Your task to perform on an android device: Do I have any events today? Image 0: 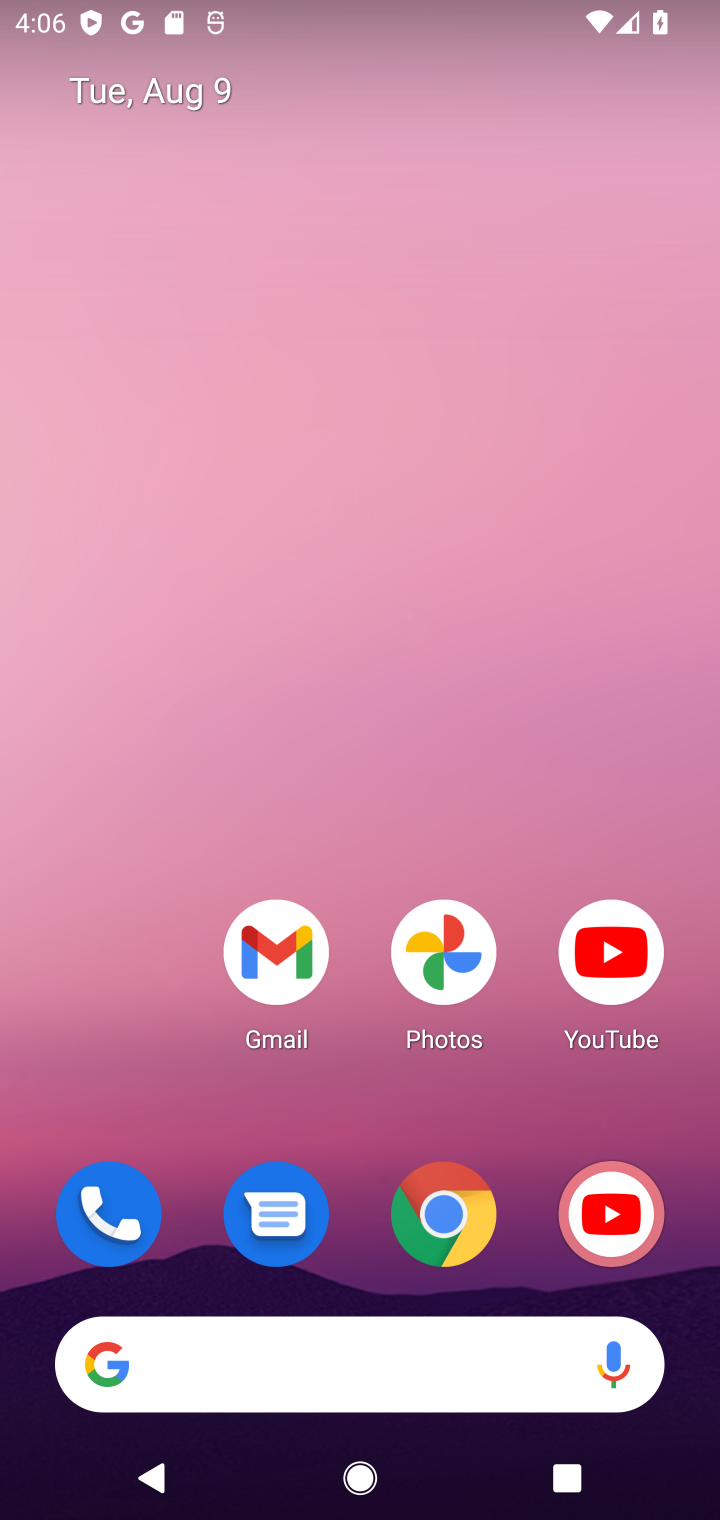
Step 0: drag from (516, 1428) to (427, 447)
Your task to perform on an android device: Do I have any events today? Image 1: 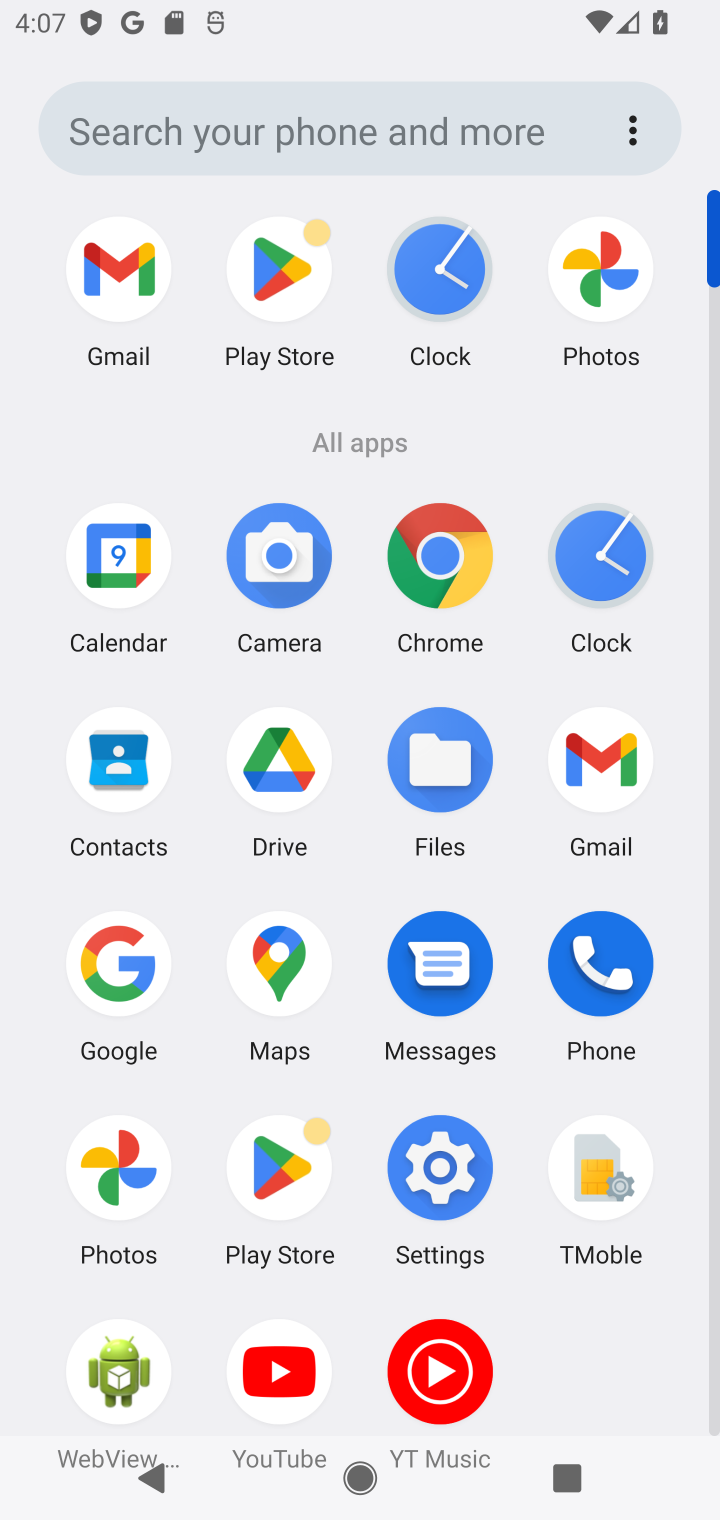
Step 1: click (105, 561)
Your task to perform on an android device: Do I have any events today? Image 2: 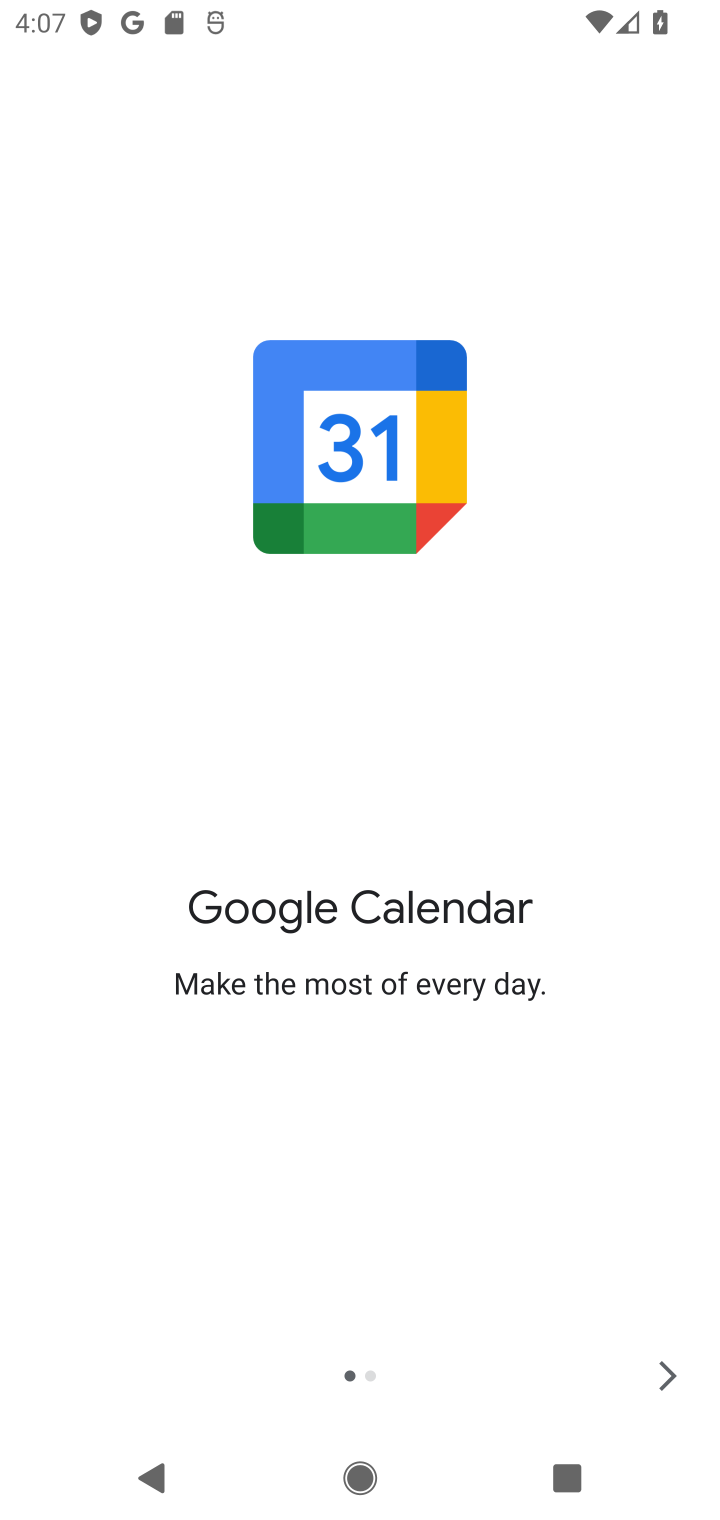
Step 2: click (659, 1380)
Your task to perform on an android device: Do I have any events today? Image 3: 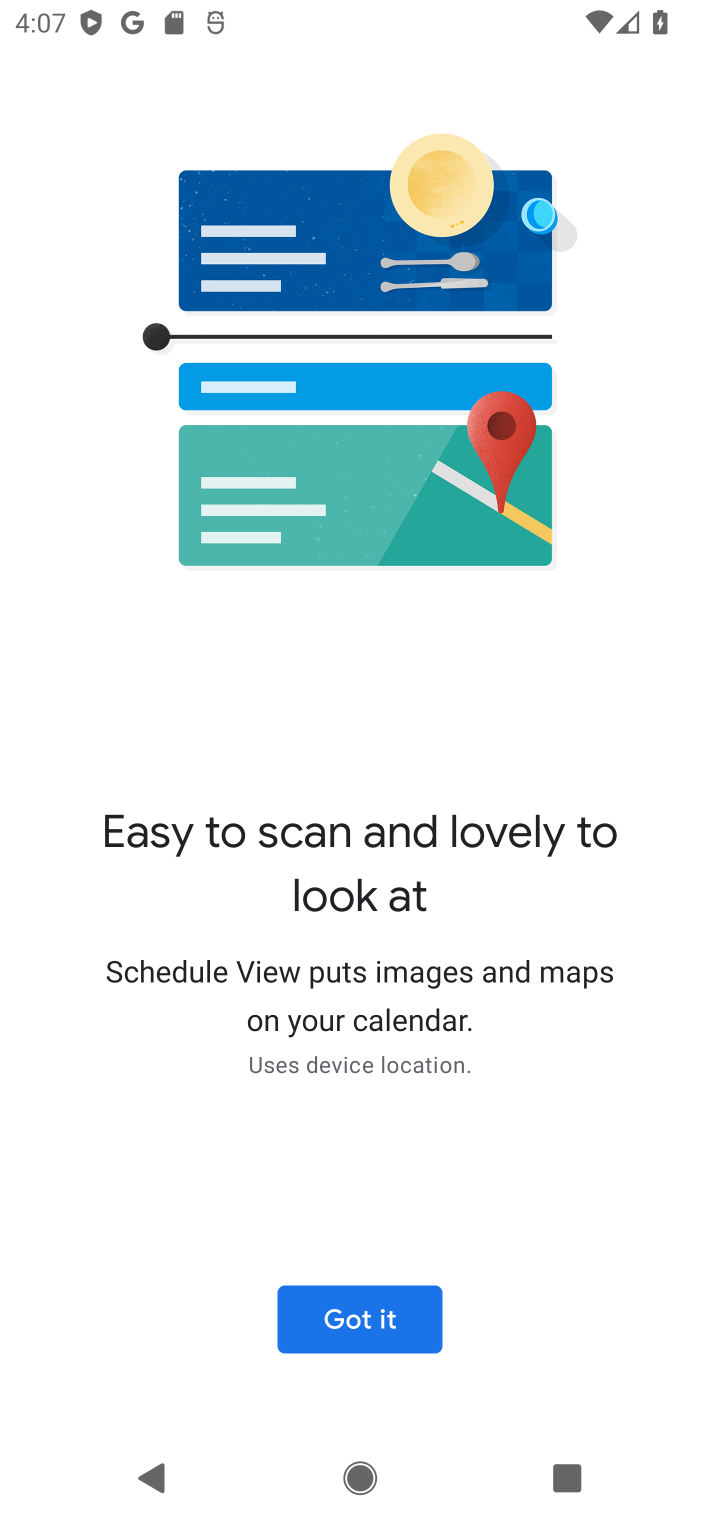
Step 3: click (375, 1312)
Your task to perform on an android device: Do I have any events today? Image 4: 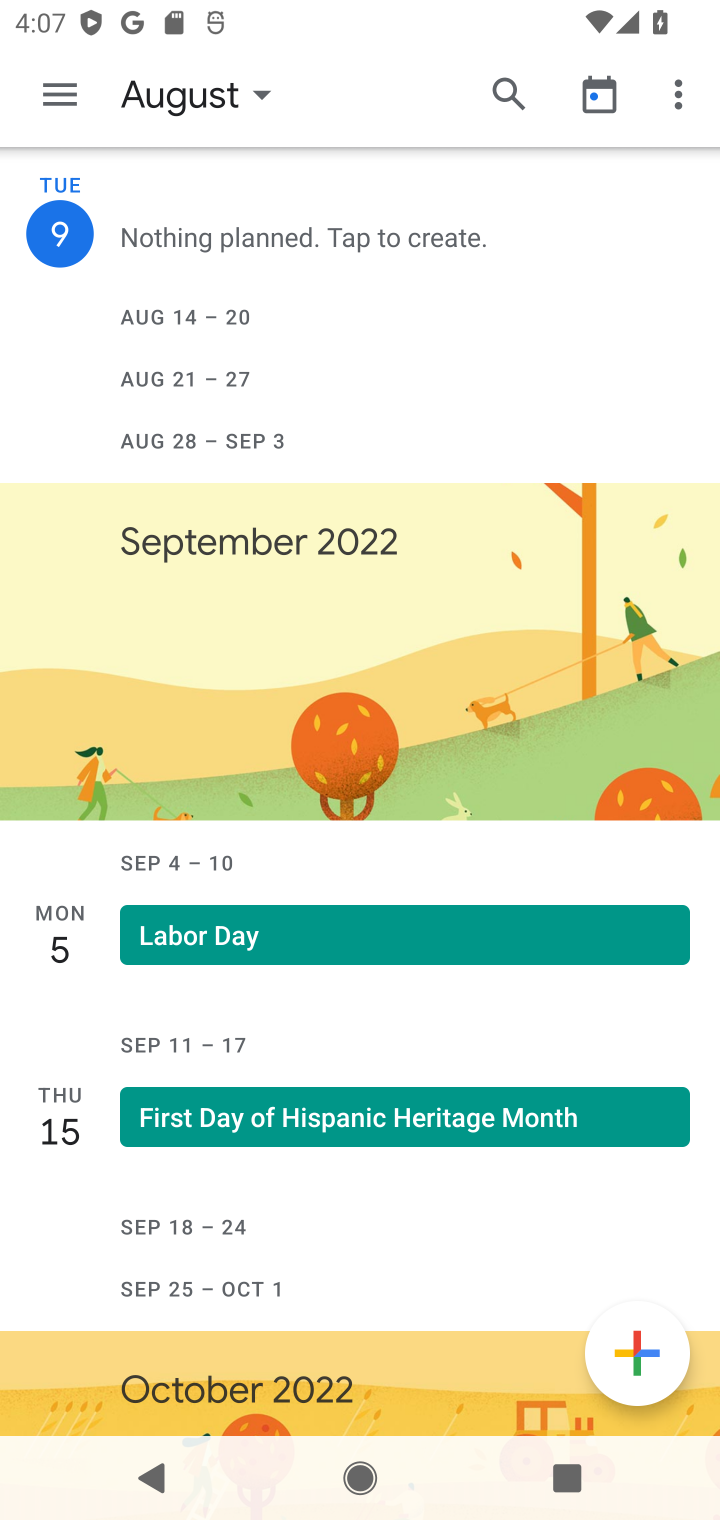
Step 4: click (49, 103)
Your task to perform on an android device: Do I have any events today? Image 5: 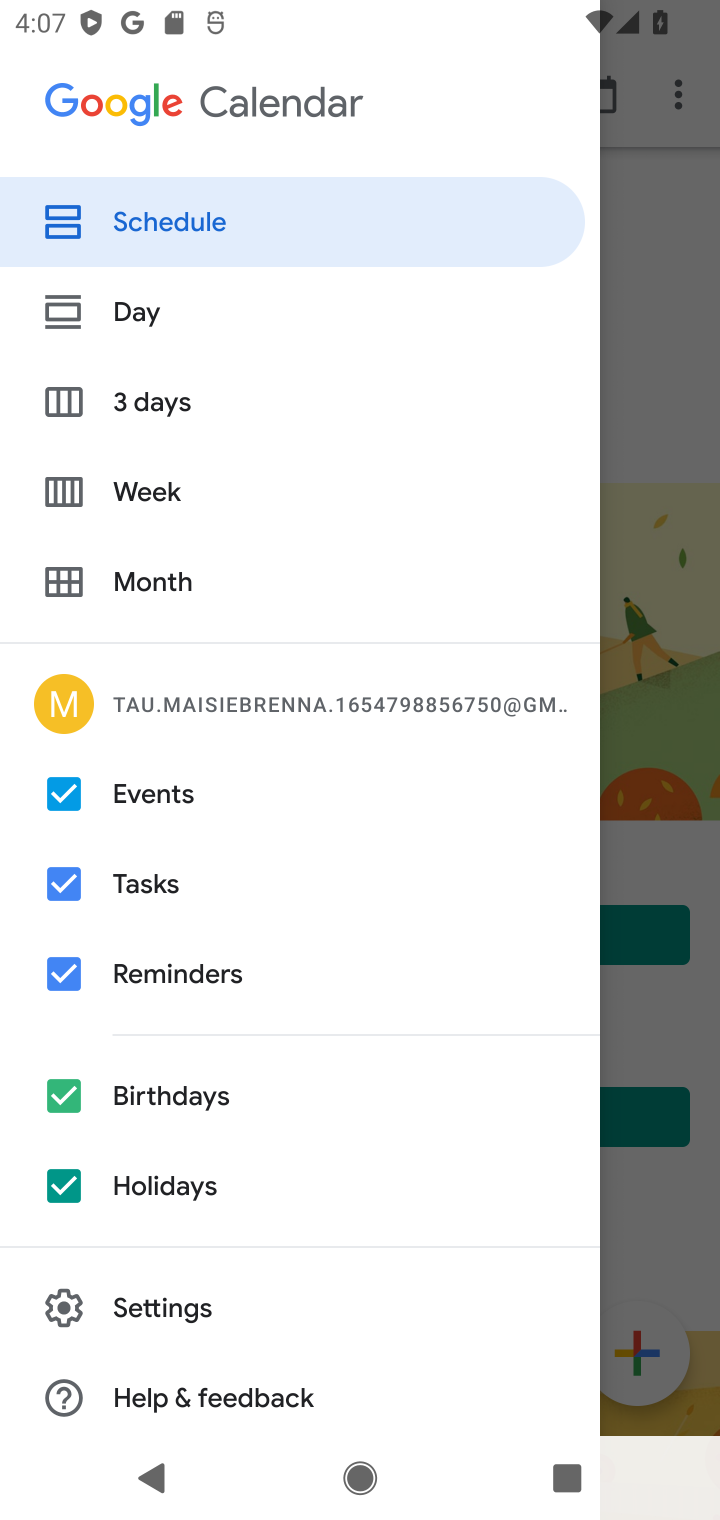
Step 5: click (124, 597)
Your task to perform on an android device: Do I have any events today? Image 6: 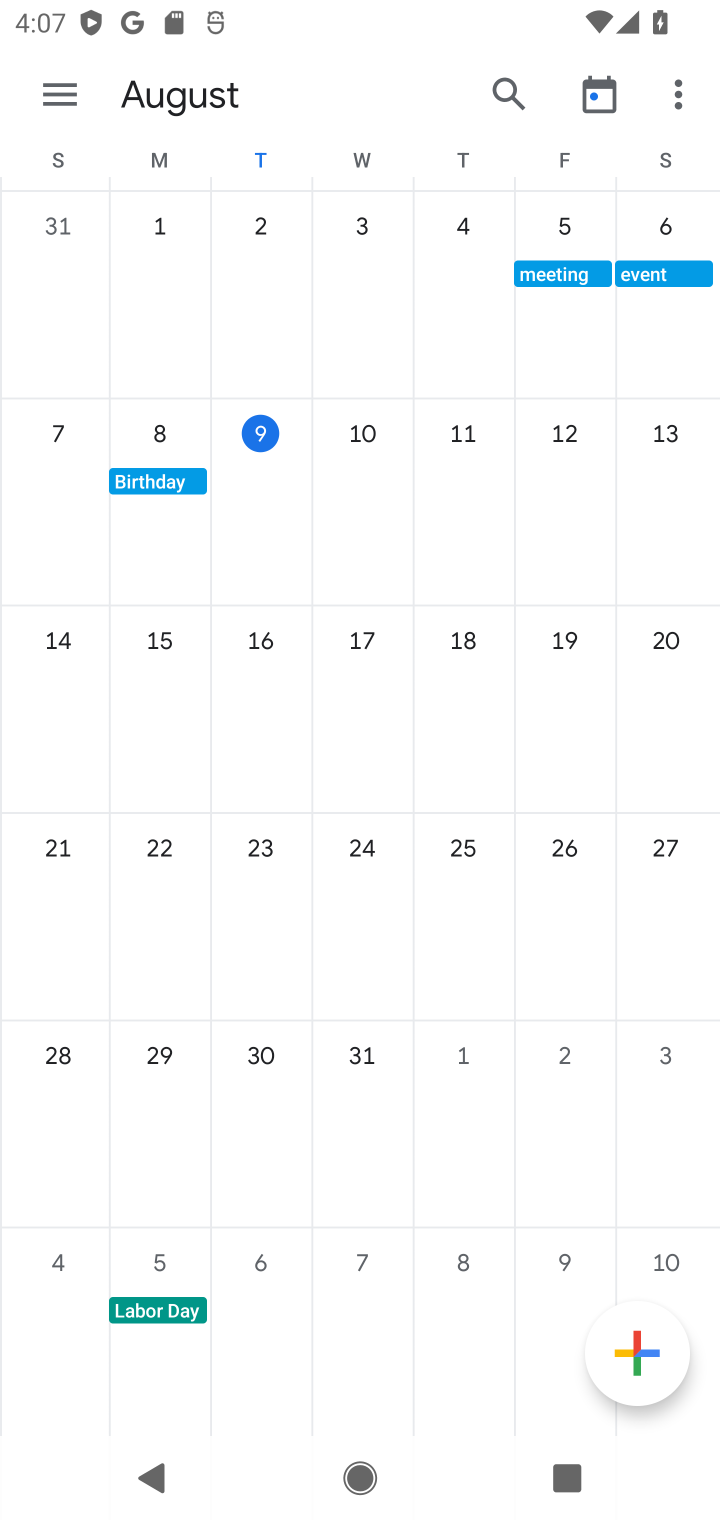
Step 6: click (262, 463)
Your task to perform on an android device: Do I have any events today? Image 7: 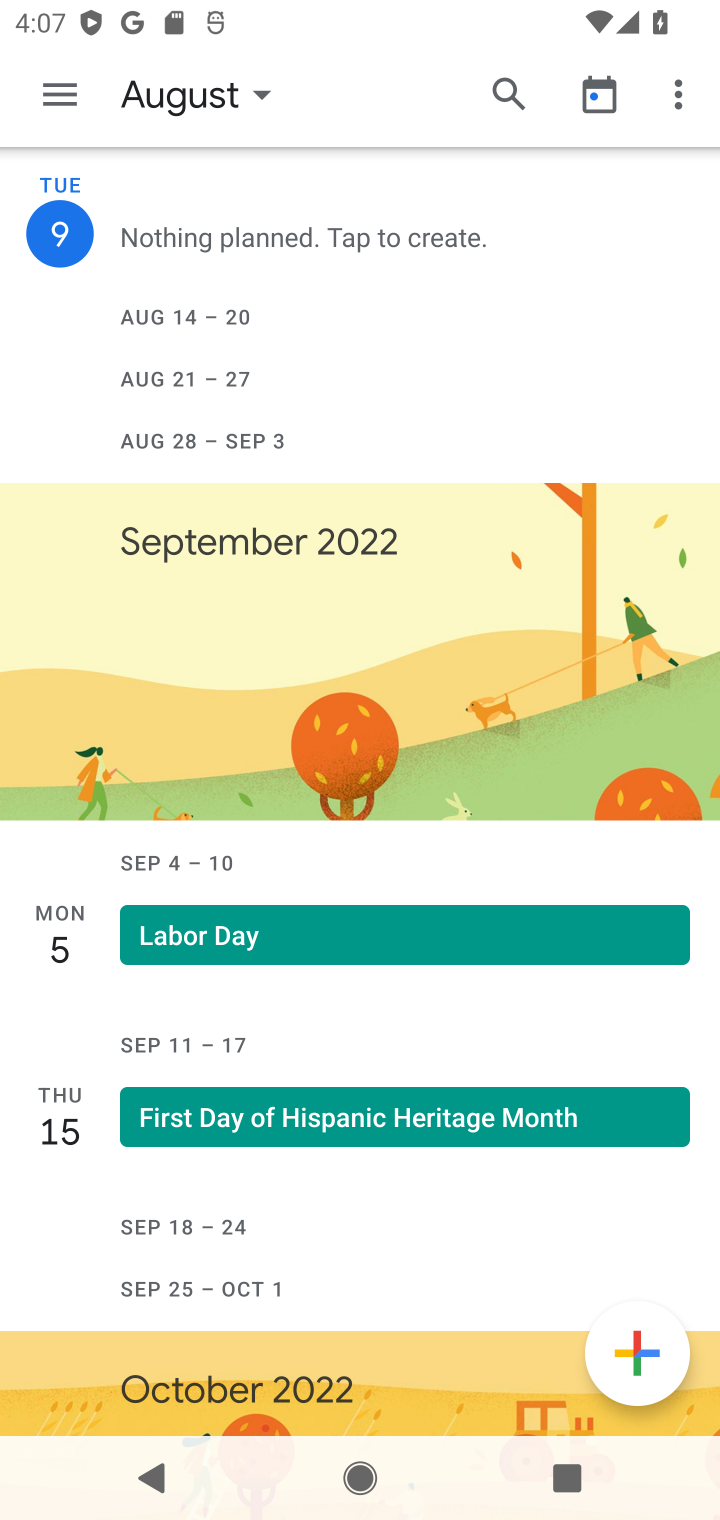
Step 7: task complete